Your task to perform on an android device: install app "Instagram" Image 0: 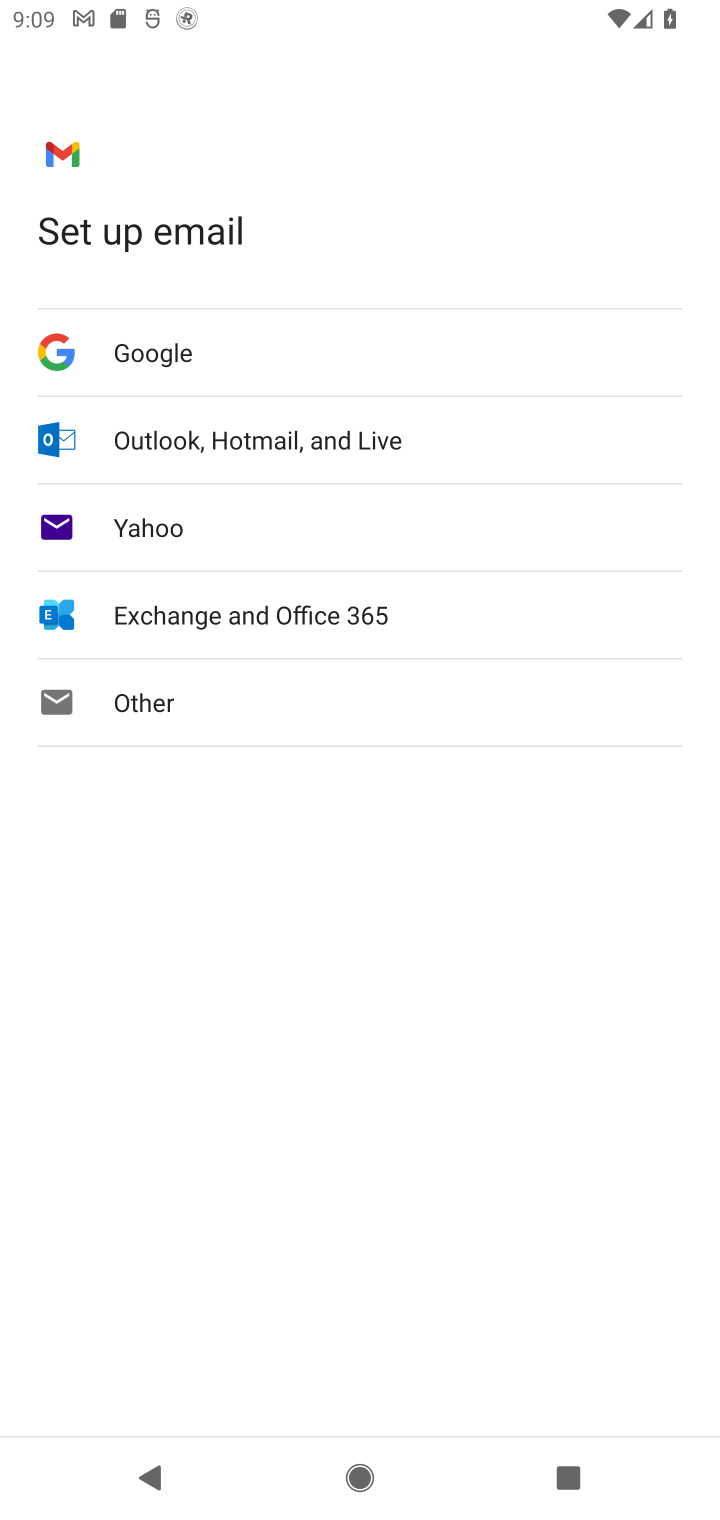
Step 0: press home button
Your task to perform on an android device: install app "Instagram" Image 1: 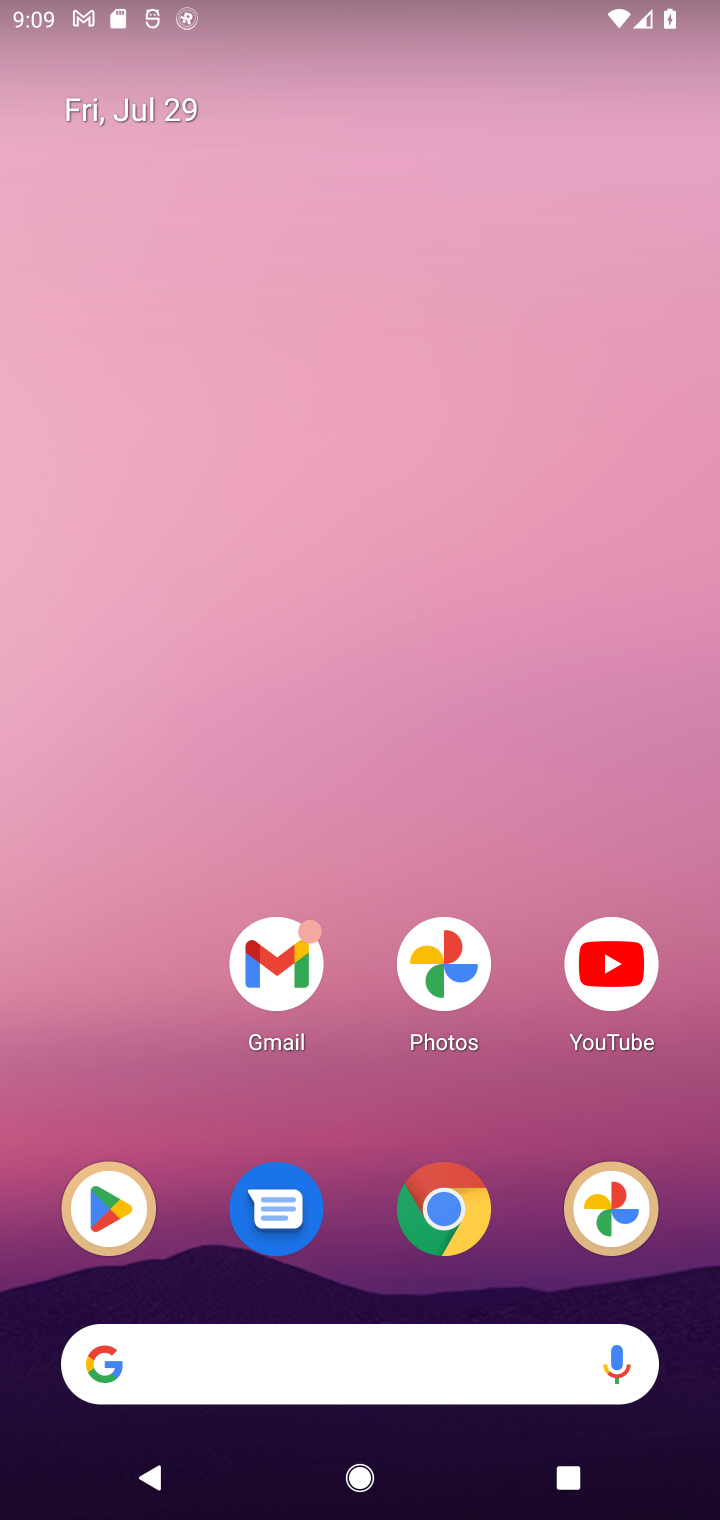
Step 1: drag from (352, 1316) to (265, 52)
Your task to perform on an android device: install app "Instagram" Image 2: 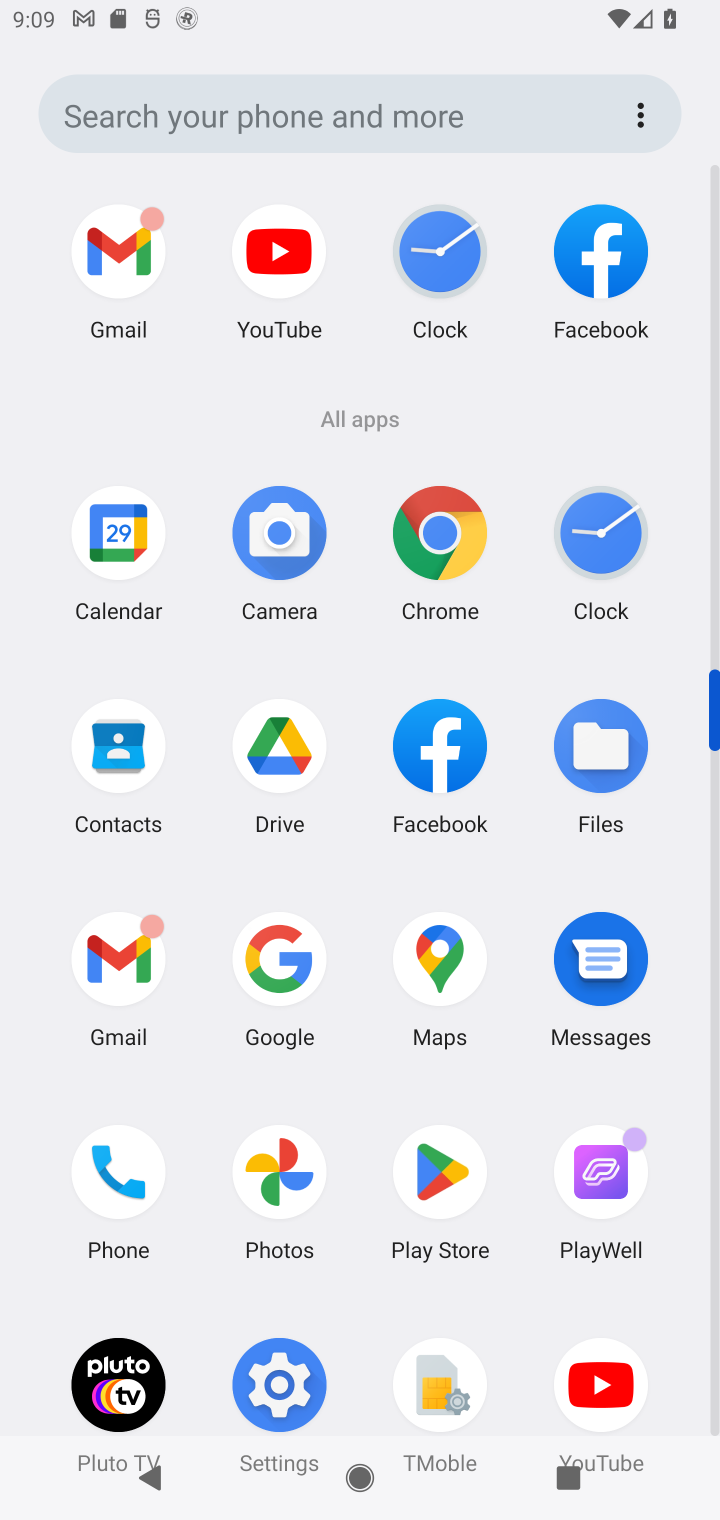
Step 2: click (438, 1168)
Your task to perform on an android device: install app "Instagram" Image 3: 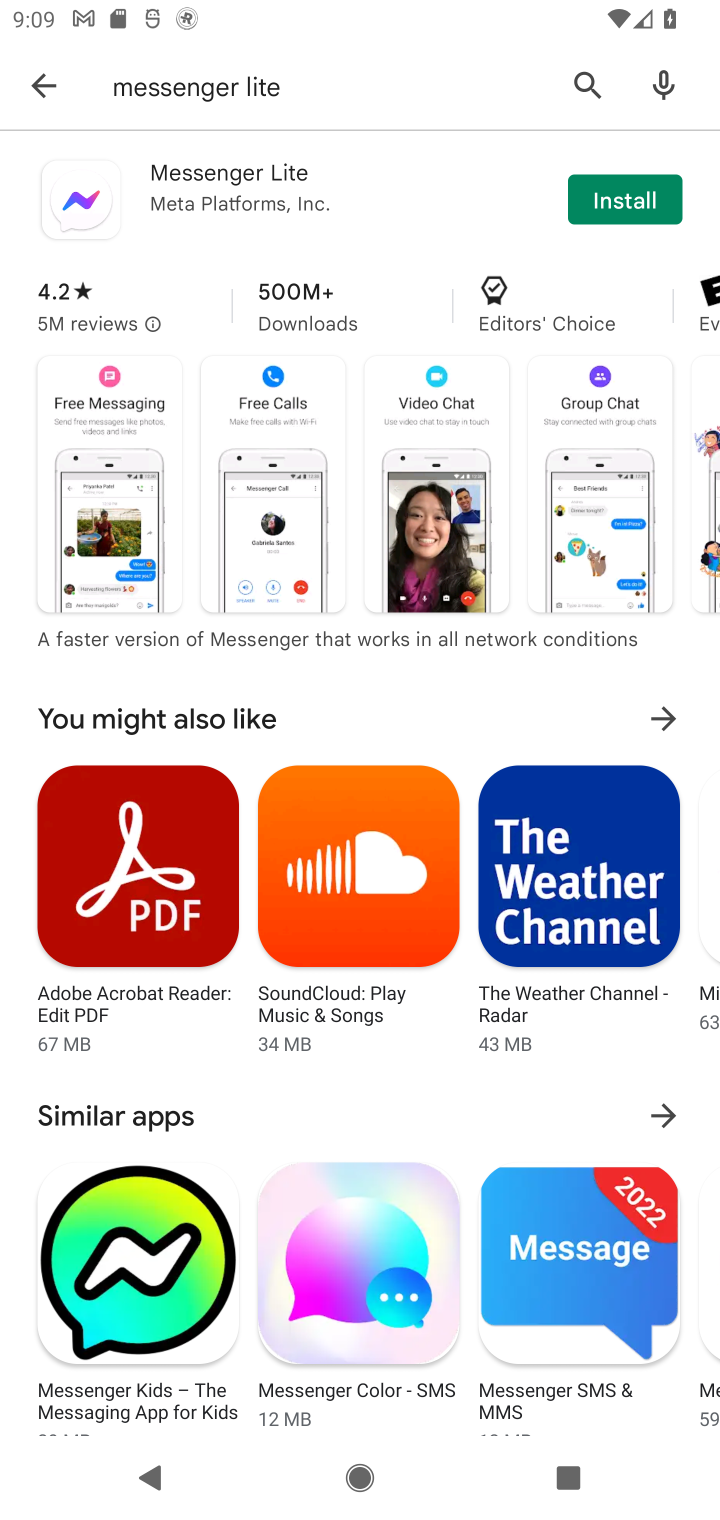
Step 3: task complete